Your task to perform on an android device: empty trash in the gmail app Image 0: 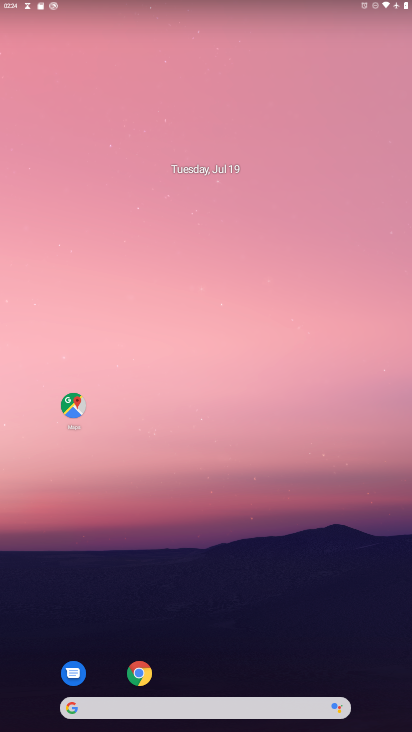
Step 0: drag from (148, 602) to (176, 161)
Your task to perform on an android device: empty trash in the gmail app Image 1: 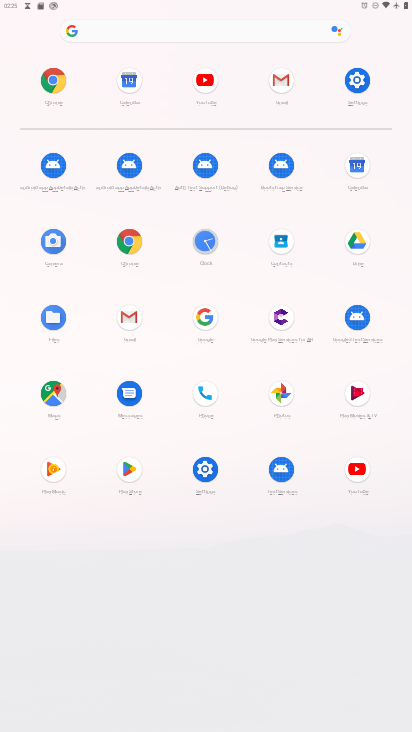
Step 1: click (278, 72)
Your task to perform on an android device: empty trash in the gmail app Image 2: 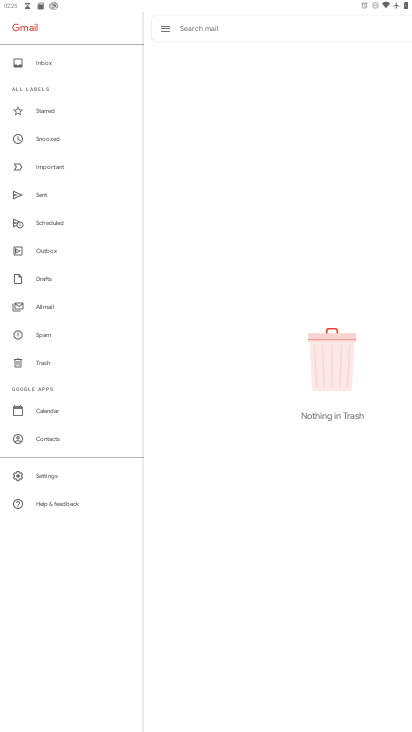
Step 2: click (30, 355)
Your task to perform on an android device: empty trash in the gmail app Image 3: 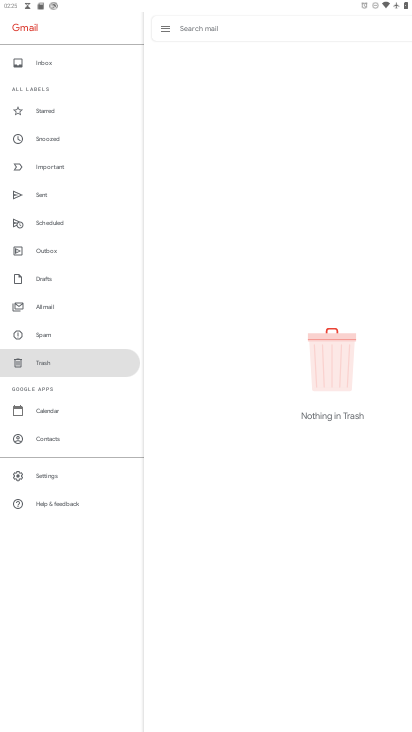
Step 3: task complete